Your task to perform on an android device: check the backup settings in the google photos Image 0: 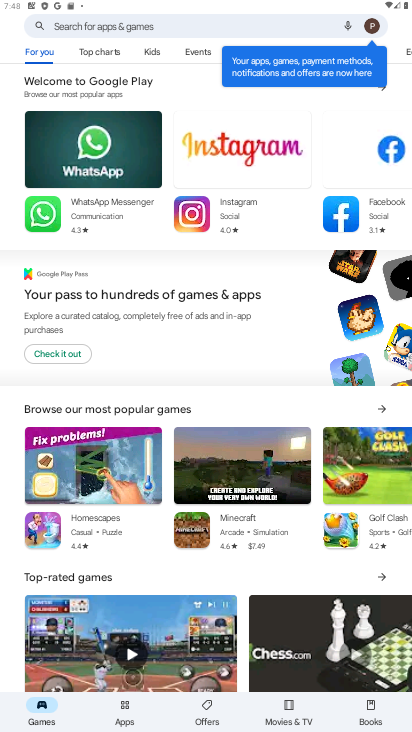
Step 0: press home button
Your task to perform on an android device: check the backup settings in the google photos Image 1: 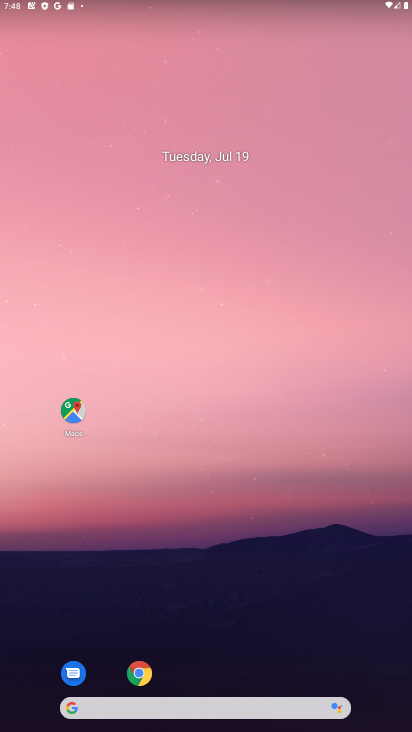
Step 1: drag from (226, 684) to (239, 183)
Your task to perform on an android device: check the backup settings in the google photos Image 2: 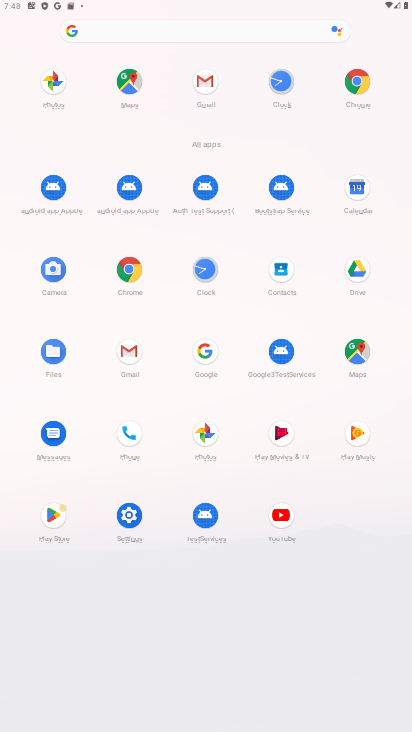
Step 2: click (65, 81)
Your task to perform on an android device: check the backup settings in the google photos Image 3: 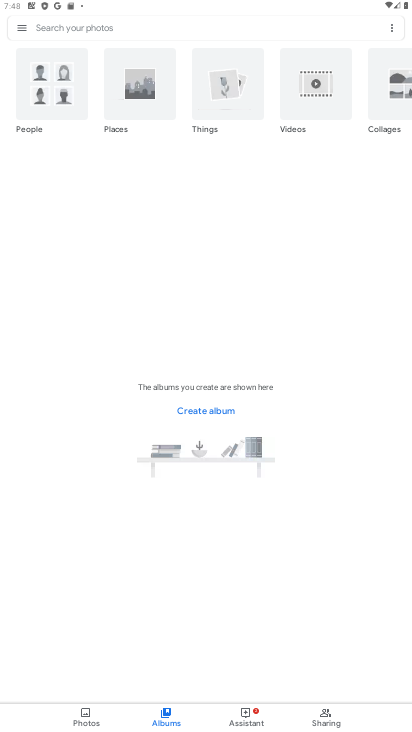
Step 3: click (18, 27)
Your task to perform on an android device: check the backup settings in the google photos Image 4: 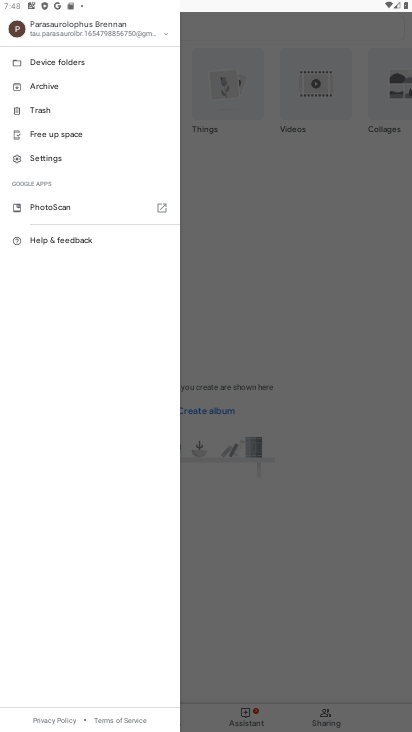
Step 4: click (67, 165)
Your task to perform on an android device: check the backup settings in the google photos Image 5: 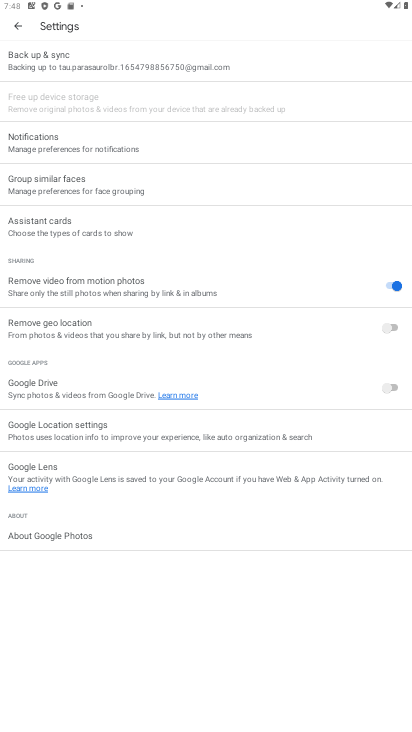
Step 5: click (103, 70)
Your task to perform on an android device: check the backup settings in the google photos Image 6: 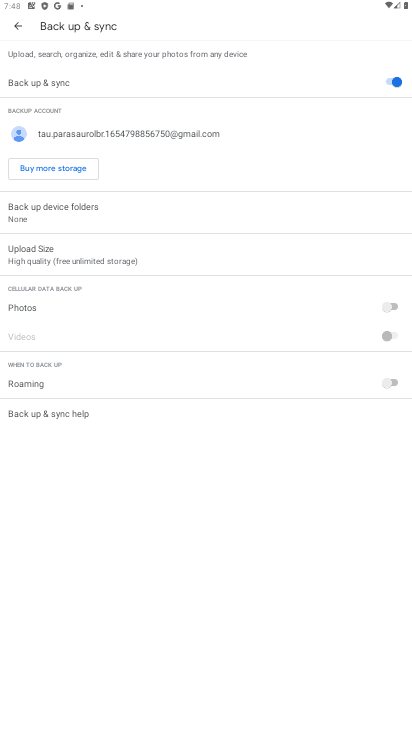
Step 6: task complete